Your task to perform on an android device: turn notification dots off Image 0: 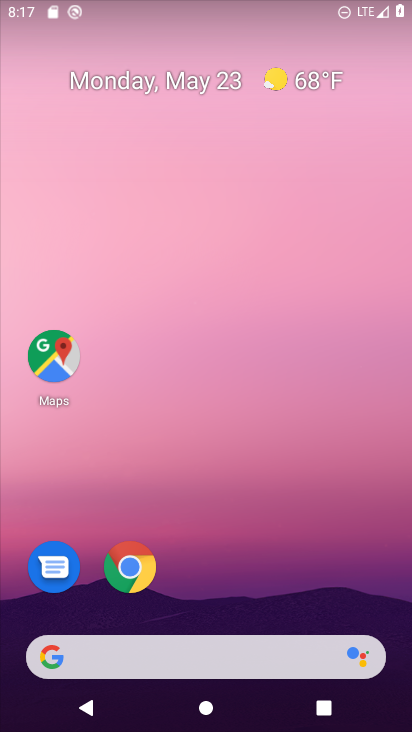
Step 0: drag from (391, 164) to (373, 694)
Your task to perform on an android device: turn notification dots off Image 1: 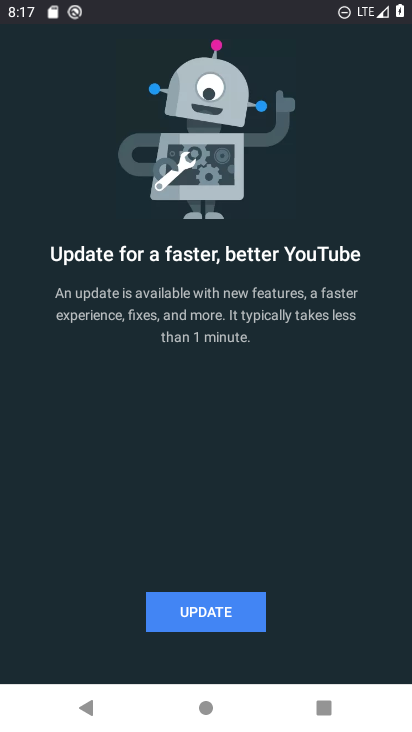
Step 1: press home button
Your task to perform on an android device: turn notification dots off Image 2: 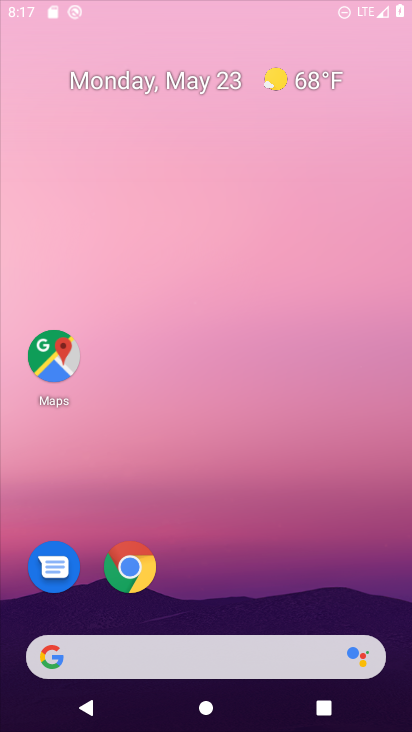
Step 2: drag from (187, 617) to (405, 719)
Your task to perform on an android device: turn notification dots off Image 3: 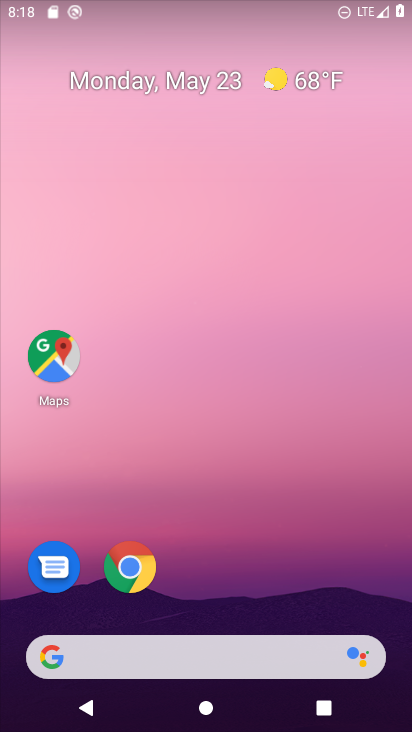
Step 3: drag from (180, 608) to (254, 53)
Your task to perform on an android device: turn notification dots off Image 4: 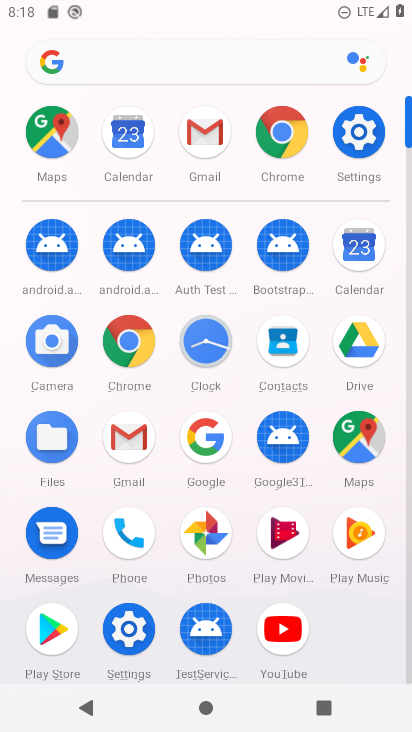
Step 4: click (365, 141)
Your task to perform on an android device: turn notification dots off Image 5: 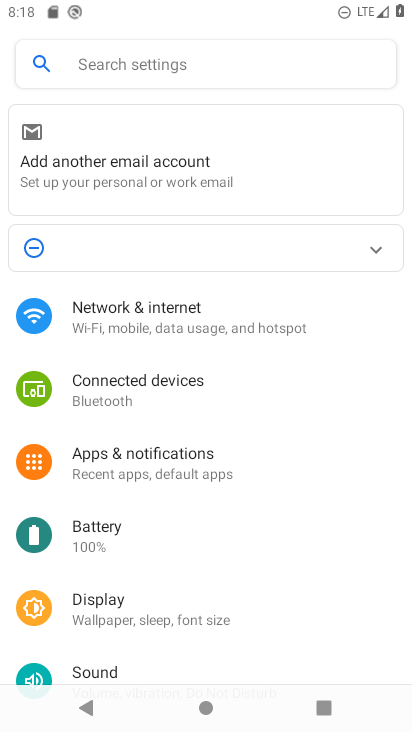
Step 5: click (140, 471)
Your task to perform on an android device: turn notification dots off Image 6: 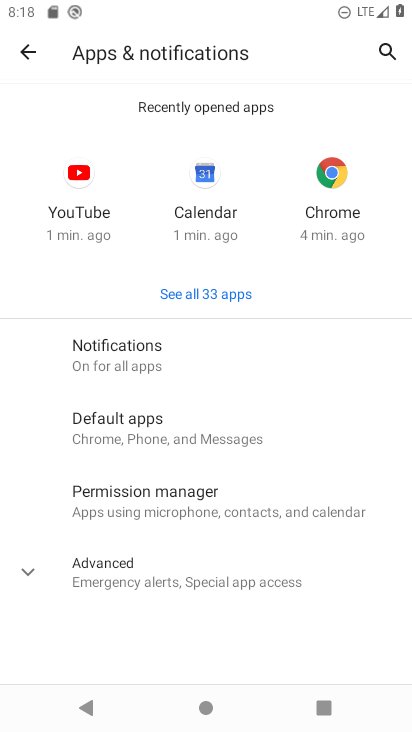
Step 6: click (175, 352)
Your task to perform on an android device: turn notification dots off Image 7: 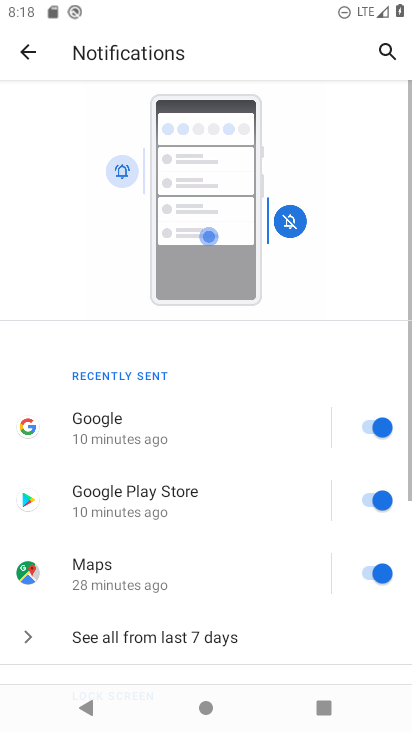
Step 7: drag from (256, 716) to (401, 192)
Your task to perform on an android device: turn notification dots off Image 8: 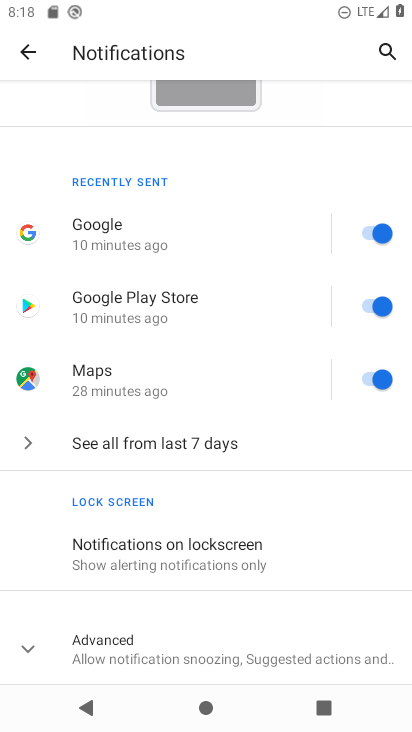
Step 8: drag from (264, 610) to (313, 245)
Your task to perform on an android device: turn notification dots off Image 9: 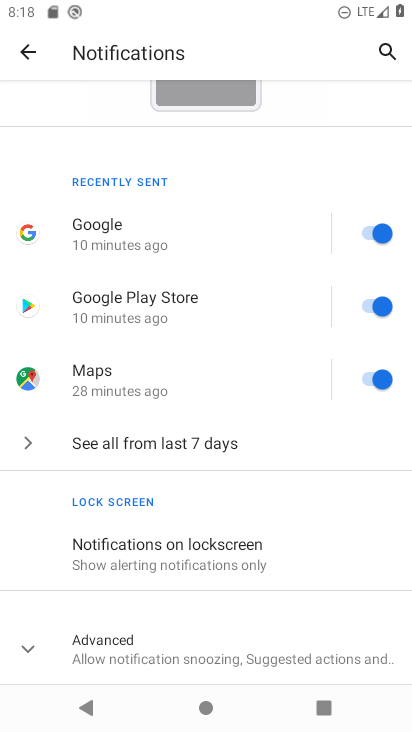
Step 9: click (133, 636)
Your task to perform on an android device: turn notification dots off Image 10: 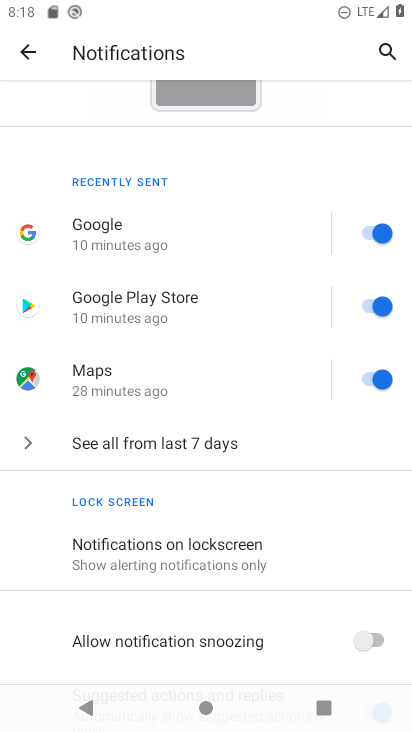
Step 10: drag from (319, 652) to (384, 142)
Your task to perform on an android device: turn notification dots off Image 11: 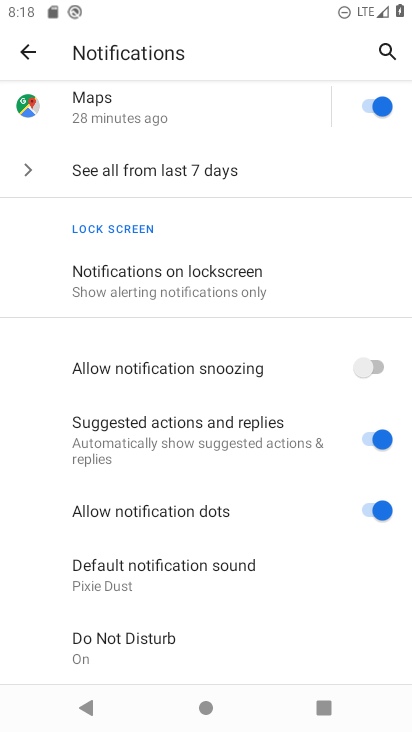
Step 11: click (374, 509)
Your task to perform on an android device: turn notification dots off Image 12: 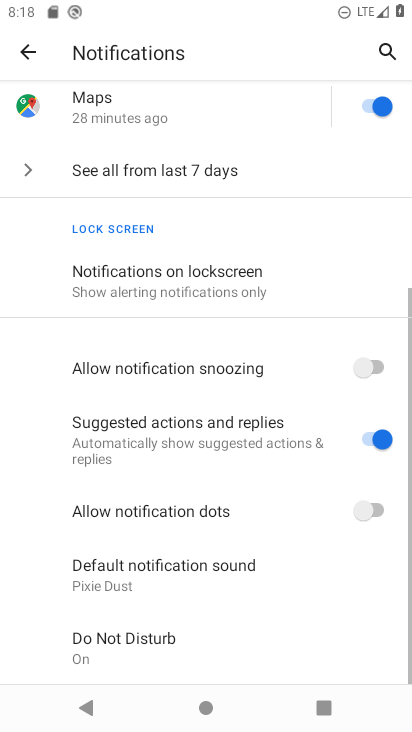
Step 12: task complete